Your task to perform on an android device: Go to Google maps Image 0: 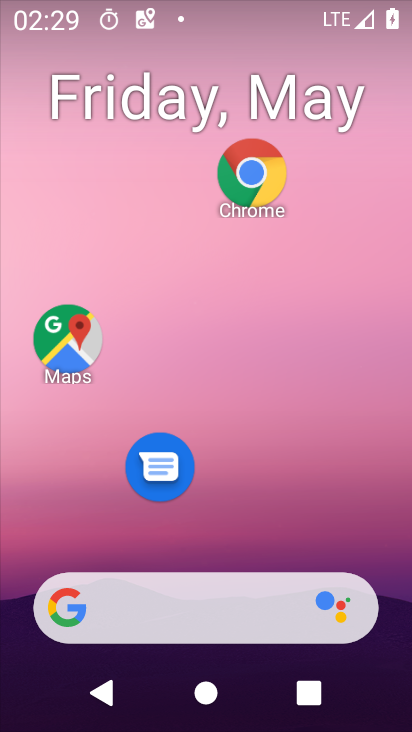
Step 0: drag from (269, 638) to (284, 192)
Your task to perform on an android device: Go to Google maps Image 1: 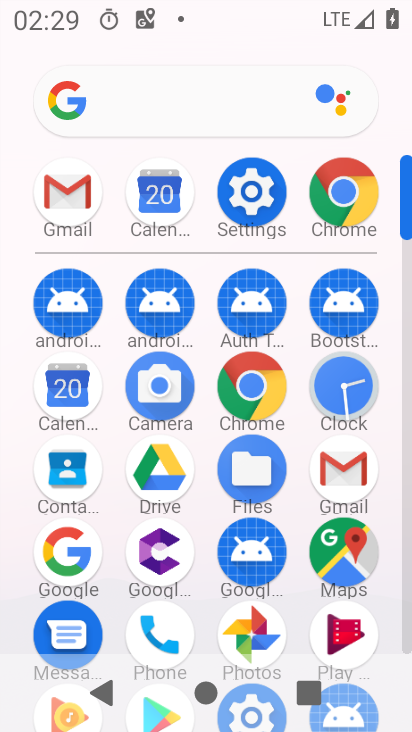
Step 1: click (350, 553)
Your task to perform on an android device: Go to Google maps Image 2: 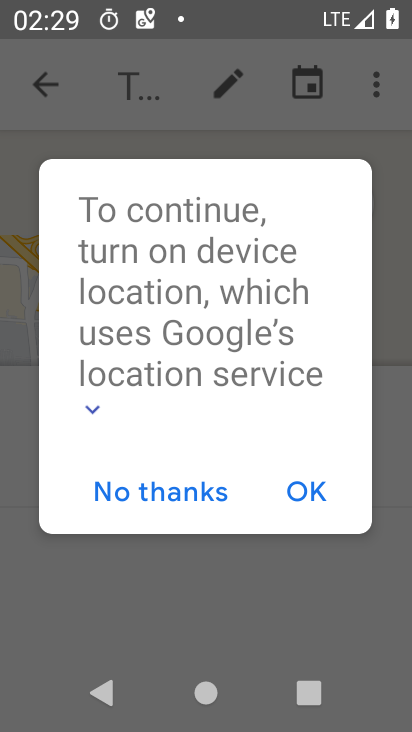
Step 2: click (321, 492)
Your task to perform on an android device: Go to Google maps Image 3: 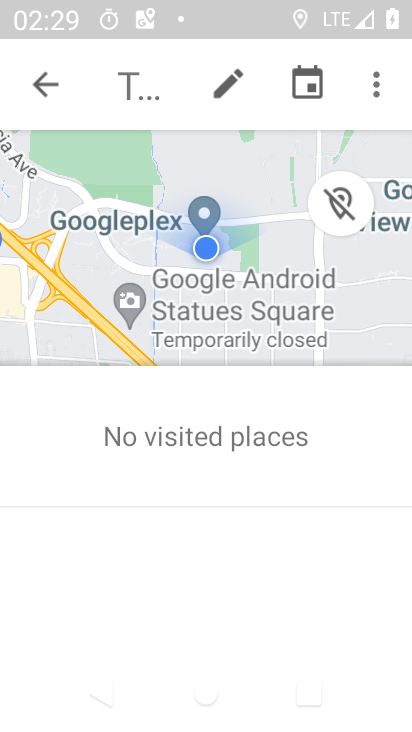
Step 3: click (49, 83)
Your task to perform on an android device: Go to Google maps Image 4: 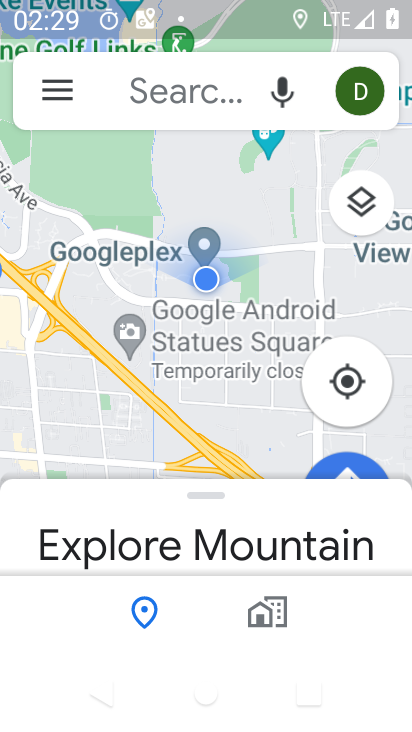
Step 4: click (367, 371)
Your task to perform on an android device: Go to Google maps Image 5: 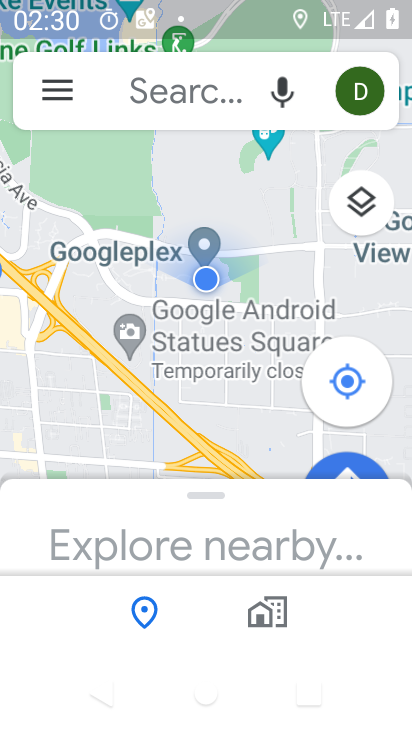
Step 5: task complete